Your task to perform on an android device: Go to Reddit.com Image 0: 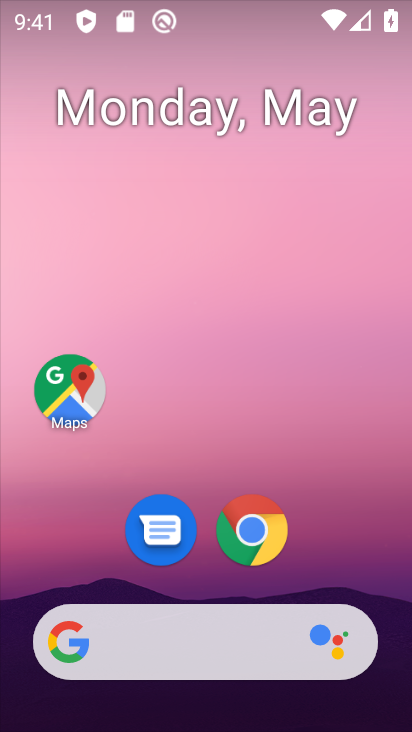
Step 0: click (254, 541)
Your task to perform on an android device: Go to Reddit.com Image 1: 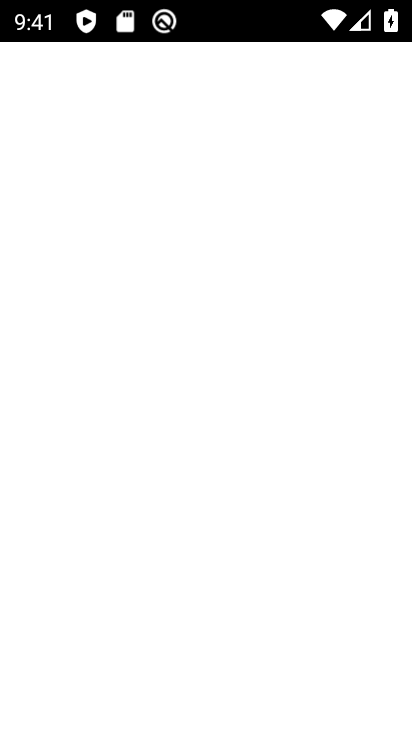
Step 1: click (254, 529)
Your task to perform on an android device: Go to Reddit.com Image 2: 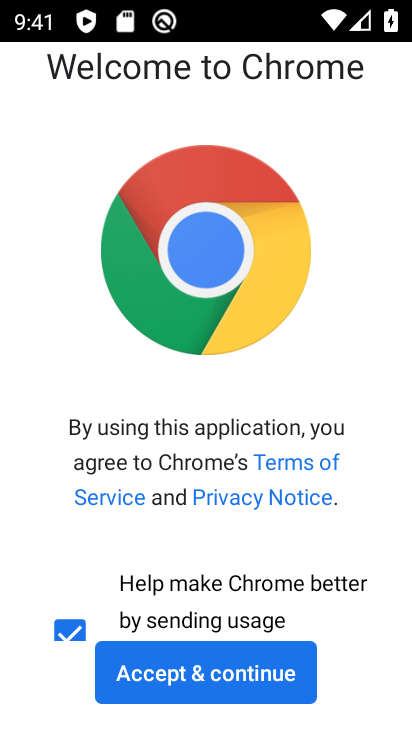
Step 2: click (267, 669)
Your task to perform on an android device: Go to Reddit.com Image 3: 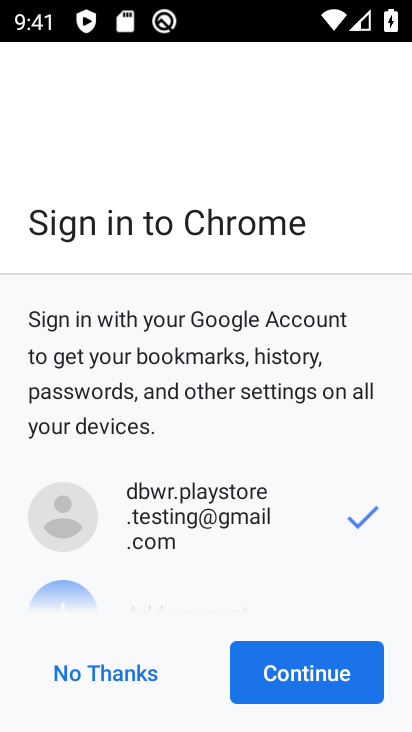
Step 3: click (280, 668)
Your task to perform on an android device: Go to Reddit.com Image 4: 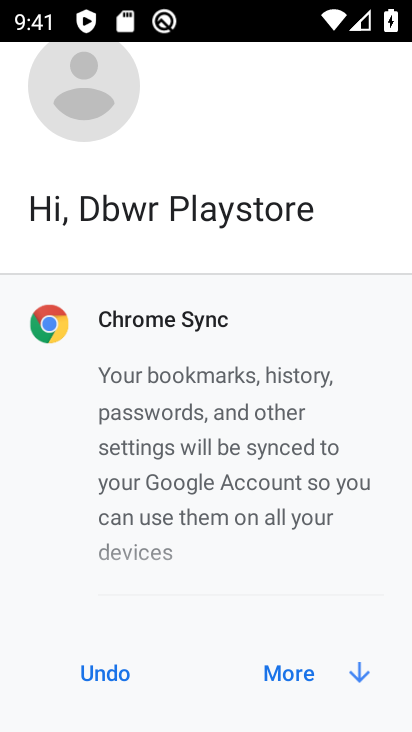
Step 4: click (284, 674)
Your task to perform on an android device: Go to Reddit.com Image 5: 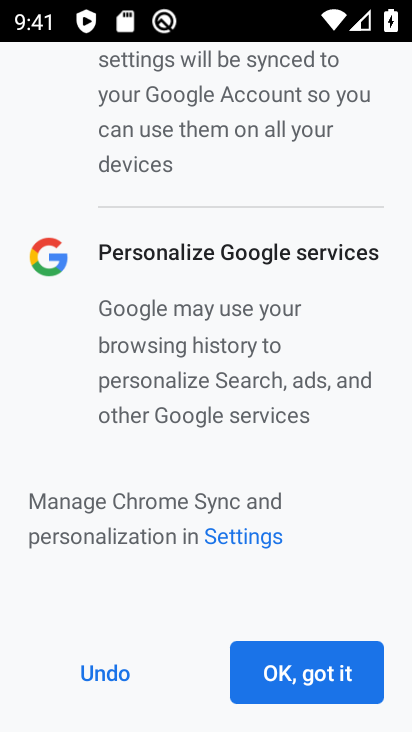
Step 5: click (293, 669)
Your task to perform on an android device: Go to Reddit.com Image 6: 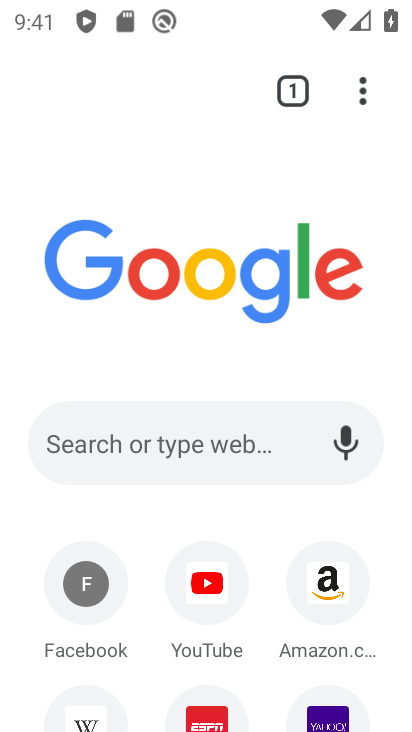
Step 6: click (182, 449)
Your task to perform on an android device: Go to Reddit.com Image 7: 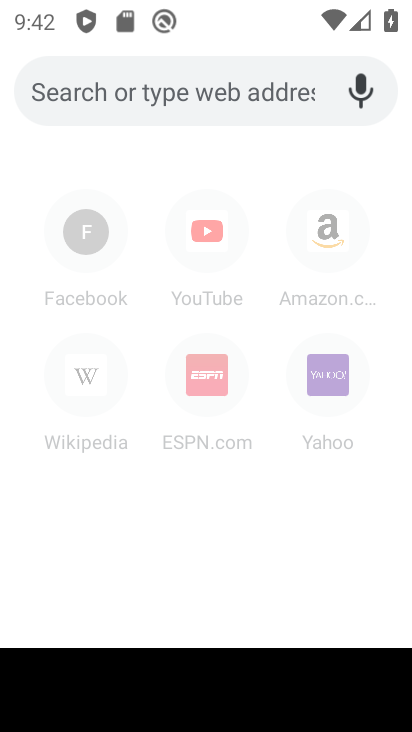
Step 7: type "www.reddit.com"
Your task to perform on an android device: Go to Reddit.com Image 8: 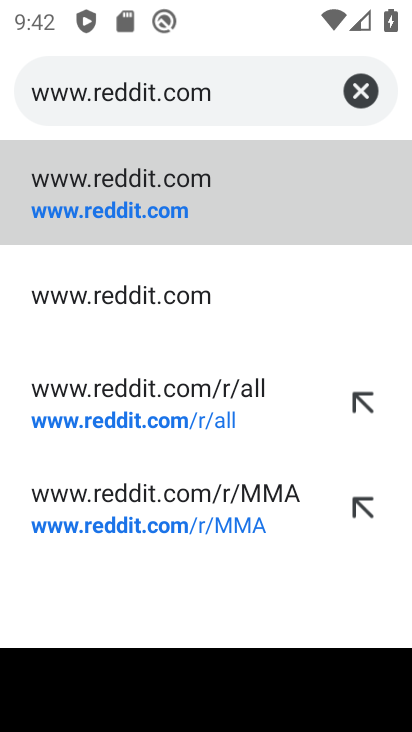
Step 8: click (147, 184)
Your task to perform on an android device: Go to Reddit.com Image 9: 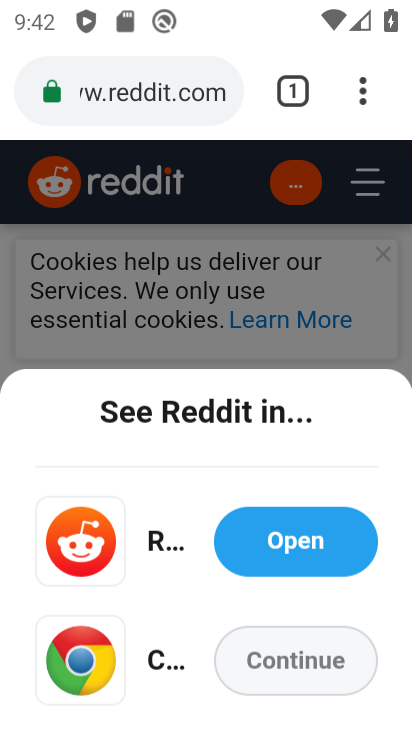
Step 9: task complete